Your task to perform on an android device: Show me the alarms in the clock app Image 0: 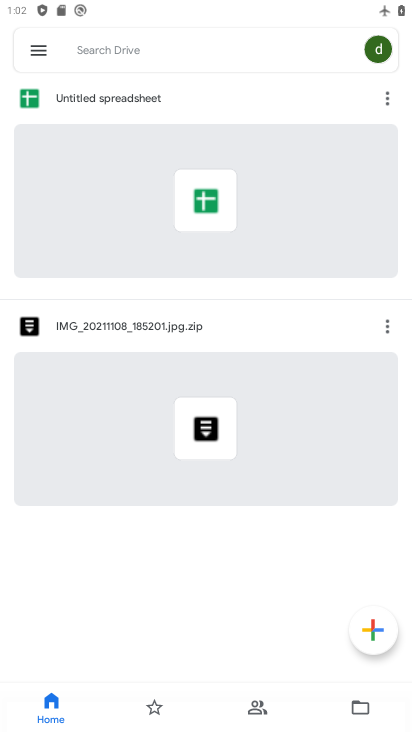
Step 0: press home button
Your task to perform on an android device: Show me the alarms in the clock app Image 1: 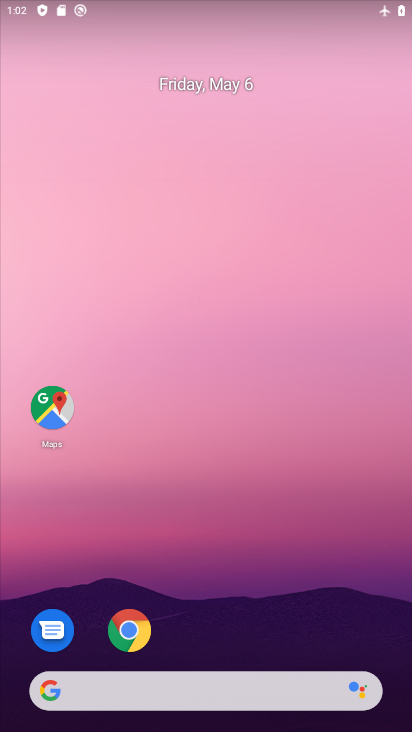
Step 1: drag from (285, 630) to (270, 43)
Your task to perform on an android device: Show me the alarms in the clock app Image 2: 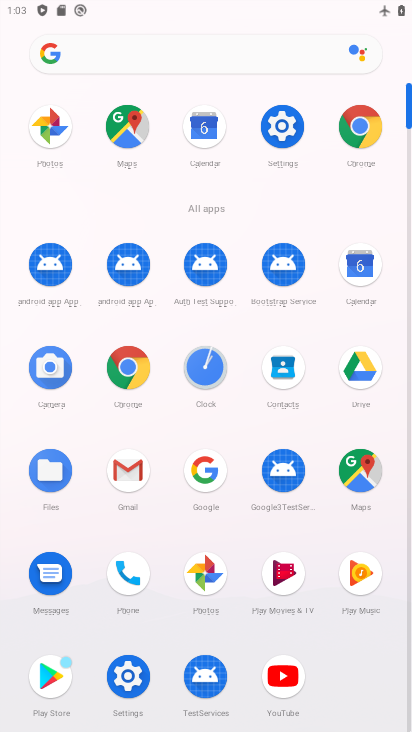
Step 2: click (209, 359)
Your task to perform on an android device: Show me the alarms in the clock app Image 3: 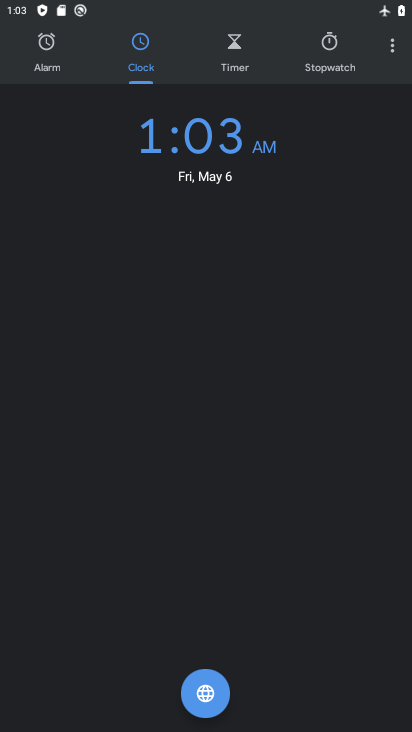
Step 3: click (39, 40)
Your task to perform on an android device: Show me the alarms in the clock app Image 4: 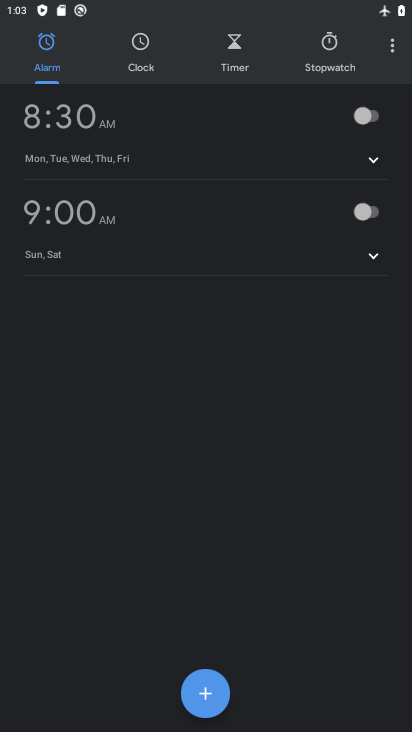
Step 4: task complete